Your task to perform on an android device: open app "Airtel Thanks" (install if not already installed) and go to login screen Image 0: 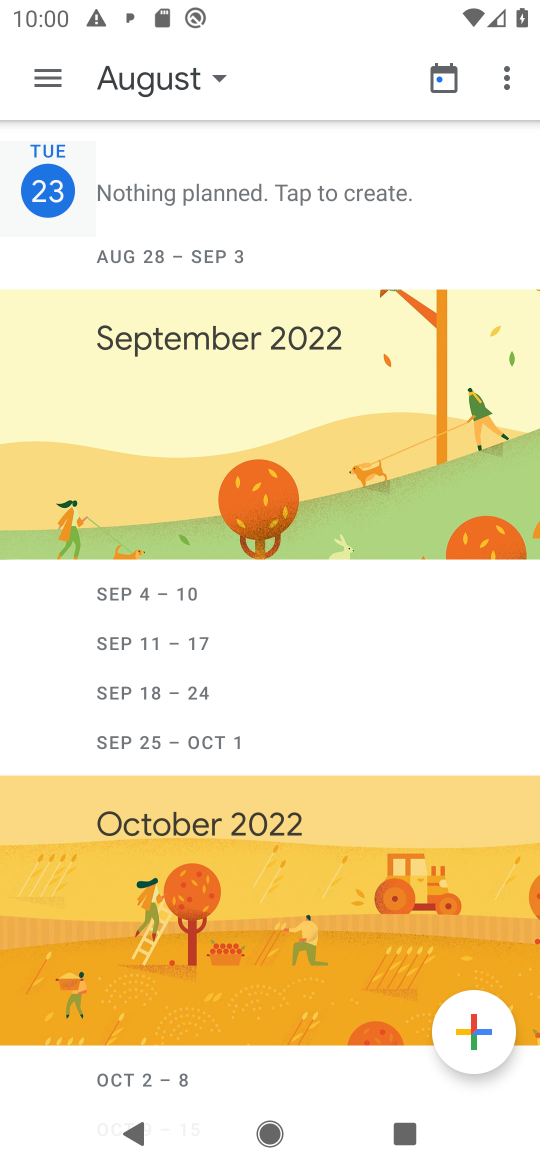
Step 0: press home button
Your task to perform on an android device: open app "Airtel Thanks" (install if not already installed) and go to login screen Image 1: 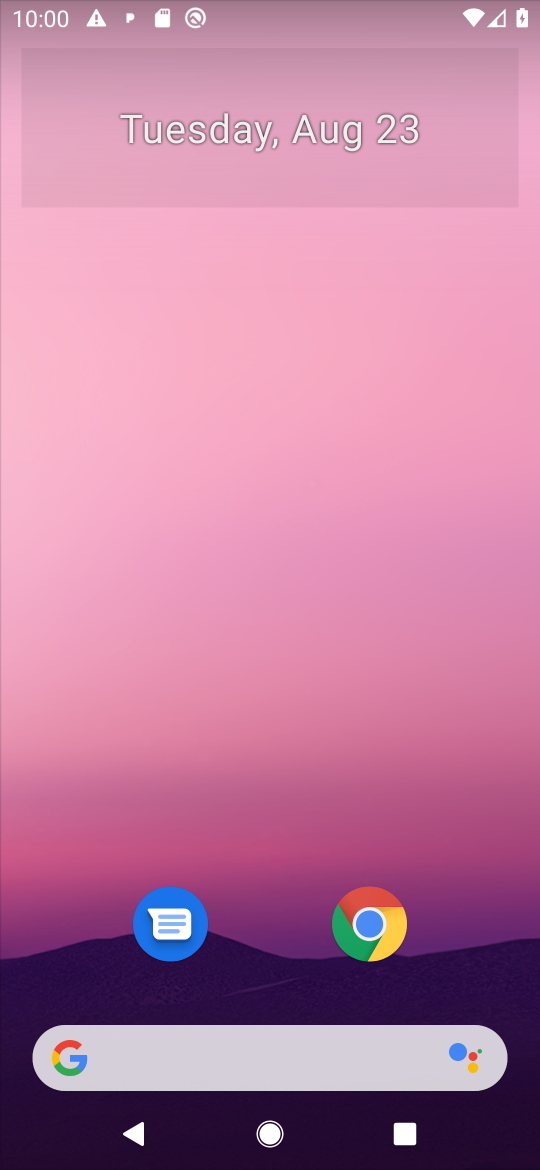
Step 1: drag from (474, 977) to (498, 113)
Your task to perform on an android device: open app "Airtel Thanks" (install if not already installed) and go to login screen Image 2: 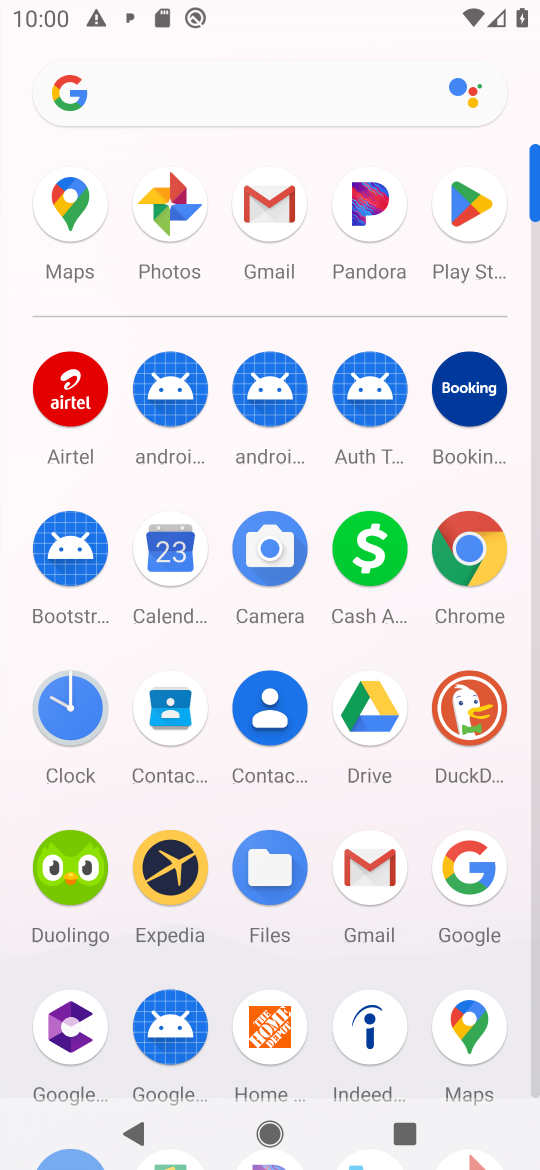
Step 2: click (475, 213)
Your task to perform on an android device: open app "Airtel Thanks" (install if not already installed) and go to login screen Image 3: 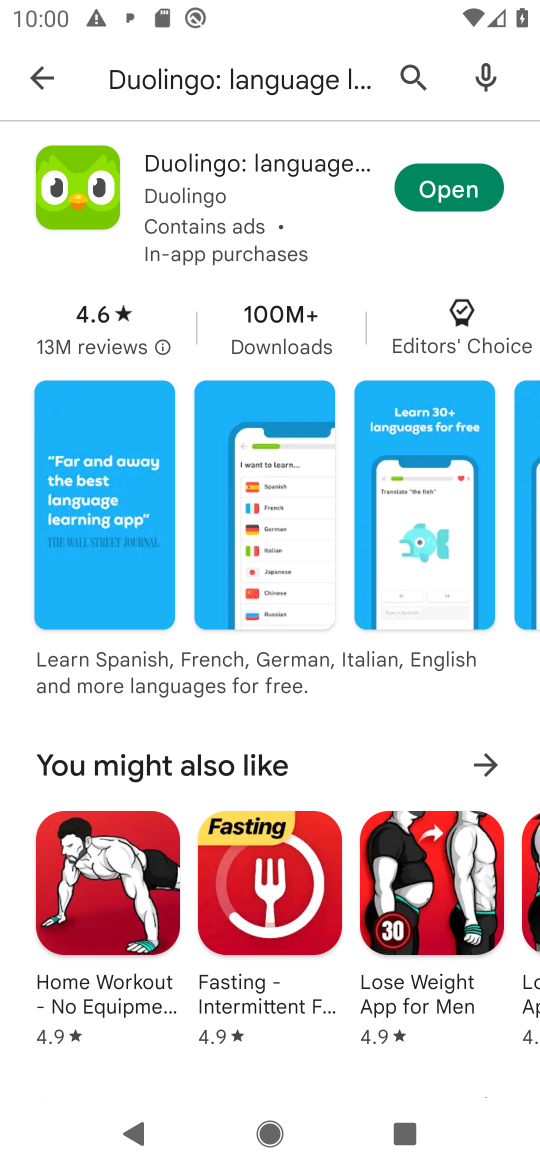
Step 3: press back button
Your task to perform on an android device: open app "Airtel Thanks" (install if not already installed) and go to login screen Image 4: 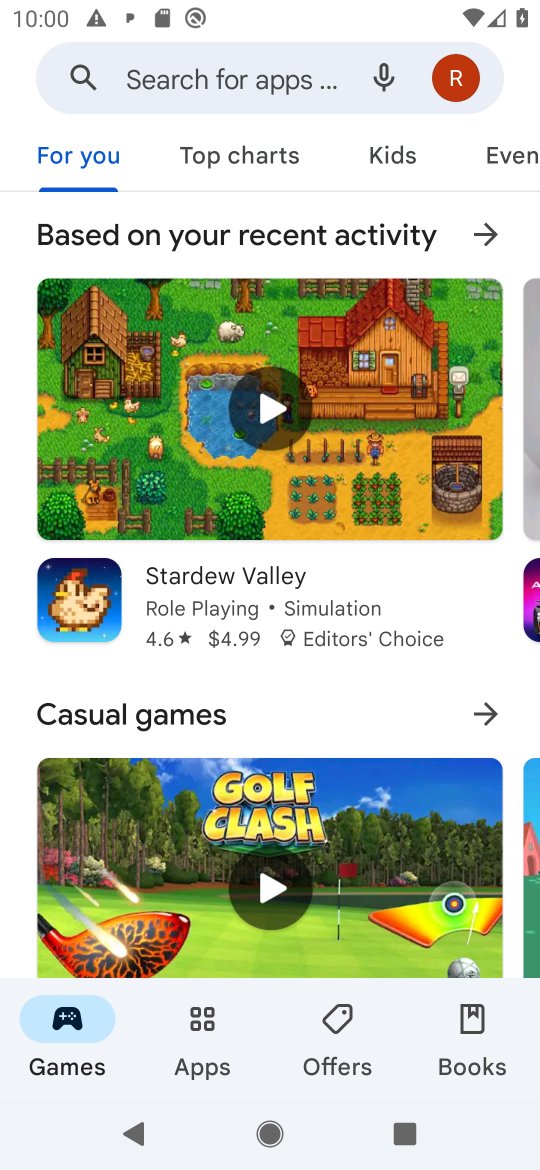
Step 4: click (280, 76)
Your task to perform on an android device: open app "Airtel Thanks" (install if not already installed) and go to login screen Image 5: 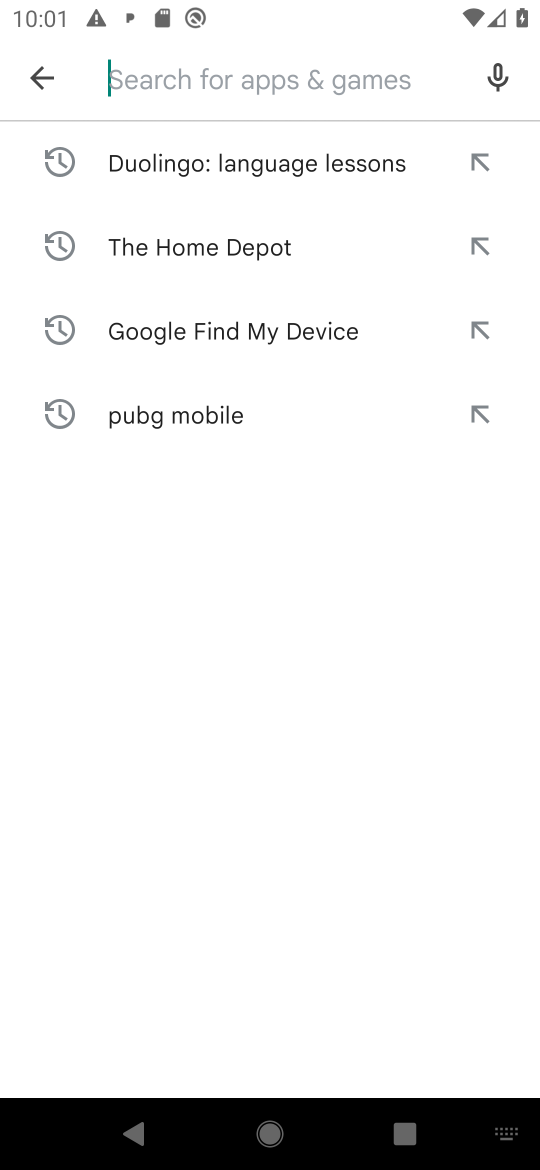
Step 5: press enter
Your task to perform on an android device: open app "Airtel Thanks" (install if not already installed) and go to login screen Image 6: 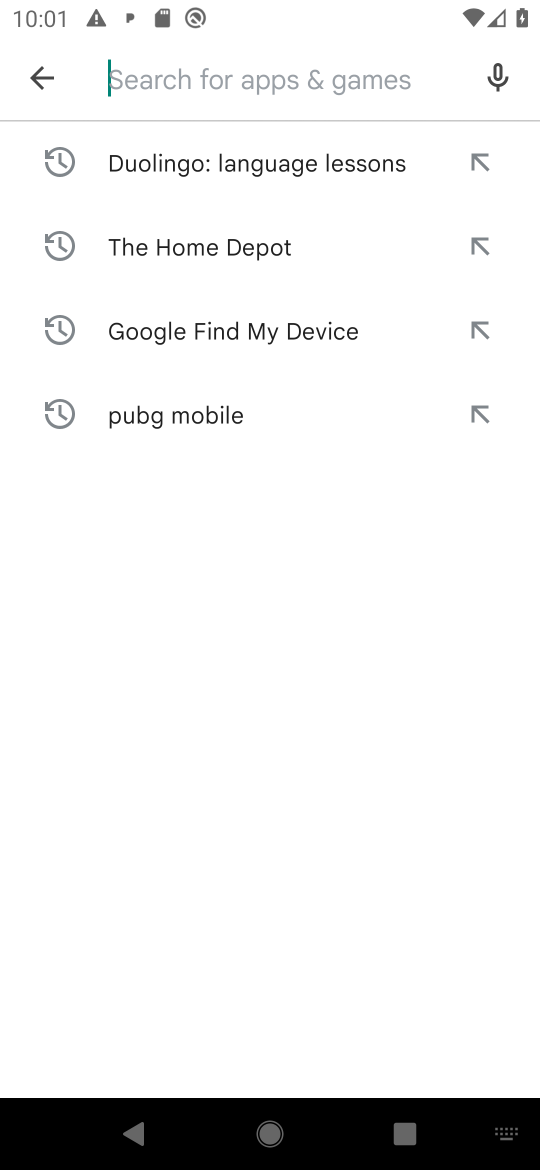
Step 6: type "airtel thanks"
Your task to perform on an android device: open app "Airtel Thanks" (install if not already installed) and go to login screen Image 7: 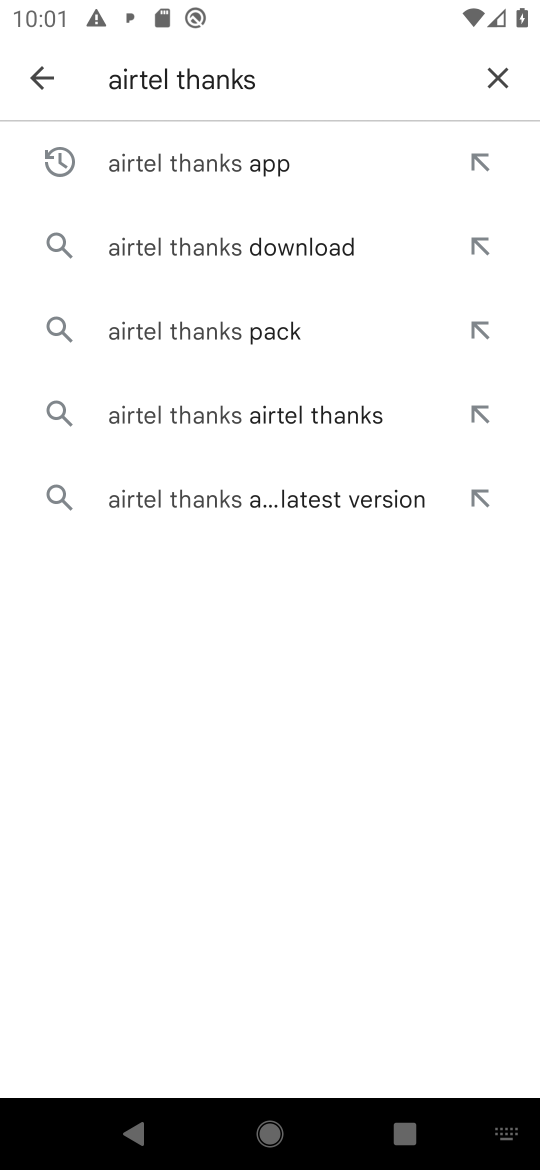
Step 7: click (260, 171)
Your task to perform on an android device: open app "Airtel Thanks" (install if not already installed) and go to login screen Image 8: 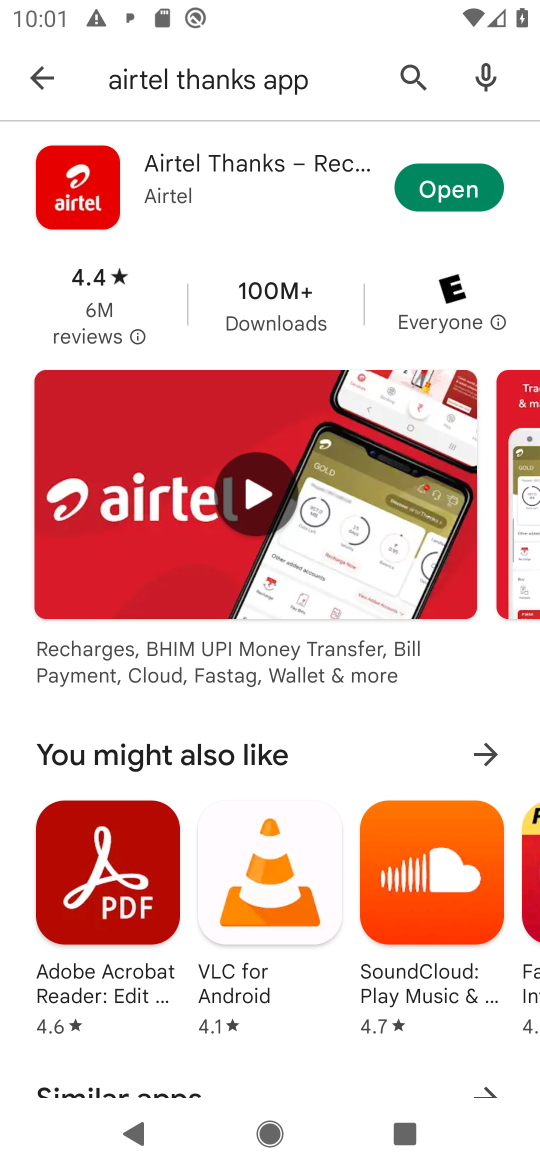
Step 8: click (452, 188)
Your task to perform on an android device: open app "Airtel Thanks" (install if not already installed) and go to login screen Image 9: 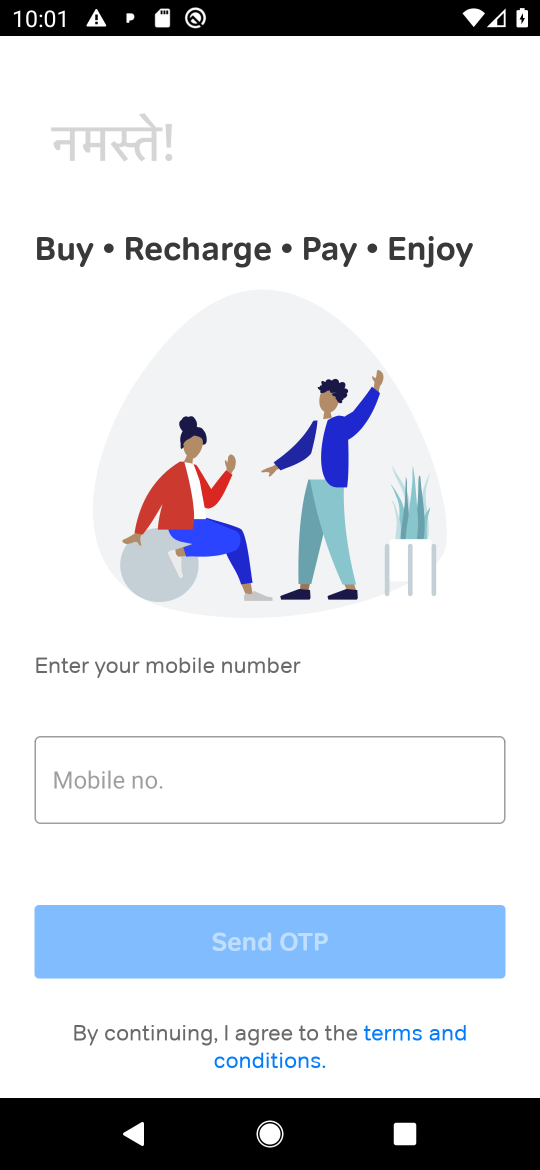
Step 9: task complete